Your task to perform on an android device: Do I have any events tomorrow? Image 0: 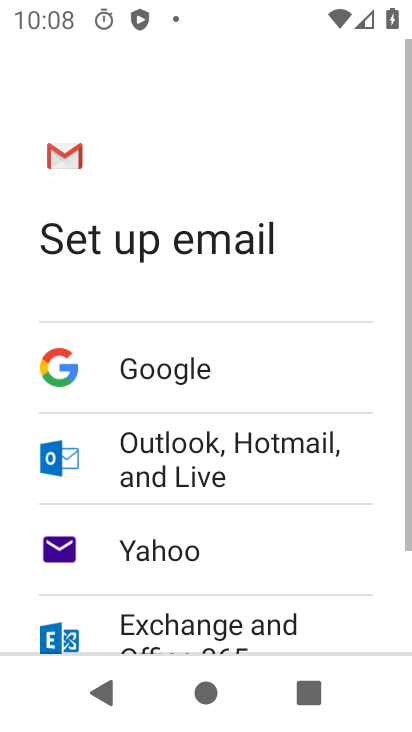
Step 0: press home button
Your task to perform on an android device: Do I have any events tomorrow? Image 1: 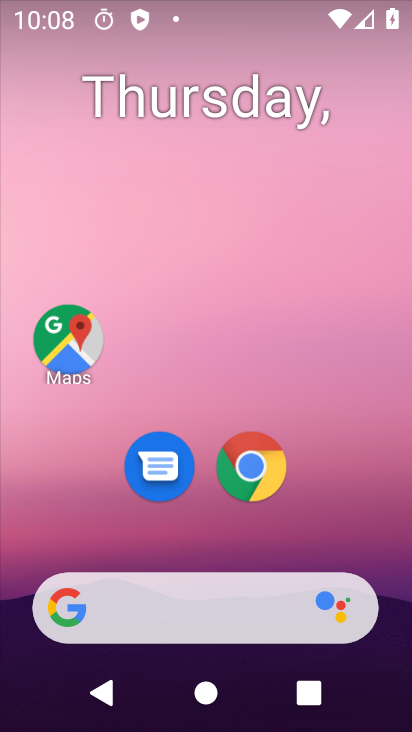
Step 1: drag from (196, 502) to (292, 121)
Your task to perform on an android device: Do I have any events tomorrow? Image 2: 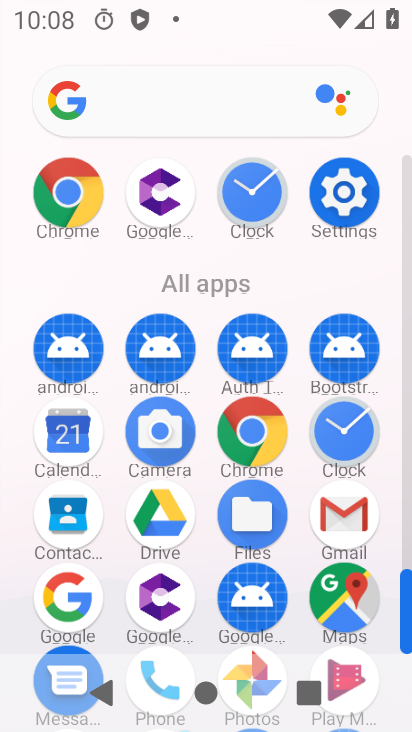
Step 2: click (66, 442)
Your task to perform on an android device: Do I have any events tomorrow? Image 3: 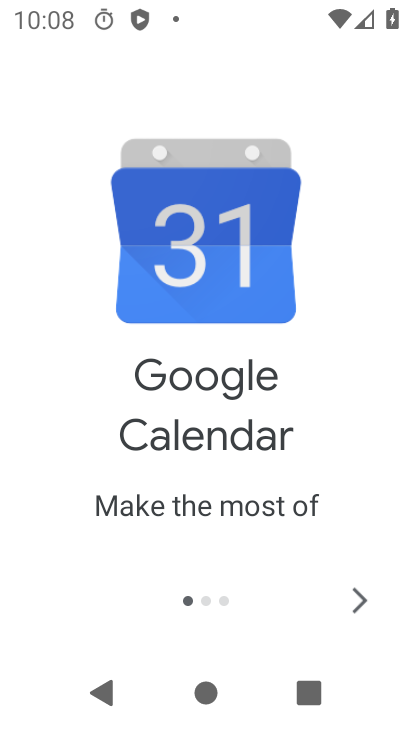
Step 3: click (352, 605)
Your task to perform on an android device: Do I have any events tomorrow? Image 4: 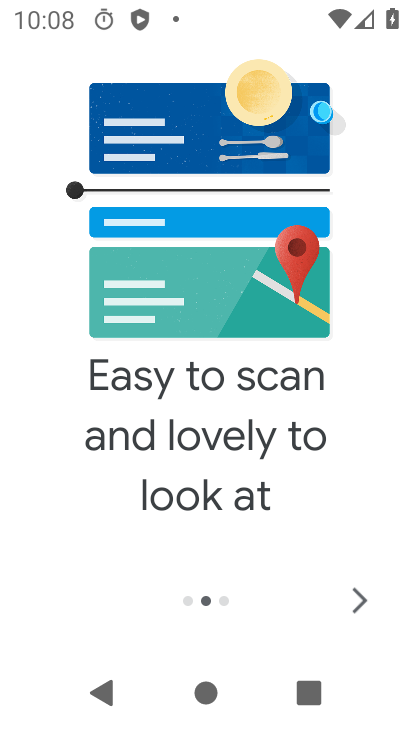
Step 4: click (350, 602)
Your task to perform on an android device: Do I have any events tomorrow? Image 5: 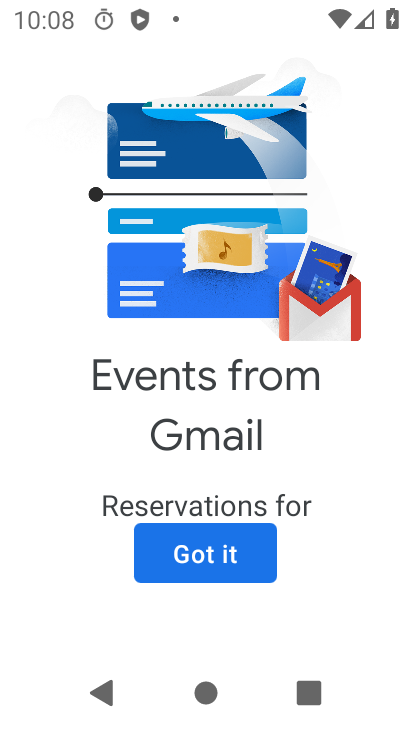
Step 5: click (214, 567)
Your task to perform on an android device: Do I have any events tomorrow? Image 6: 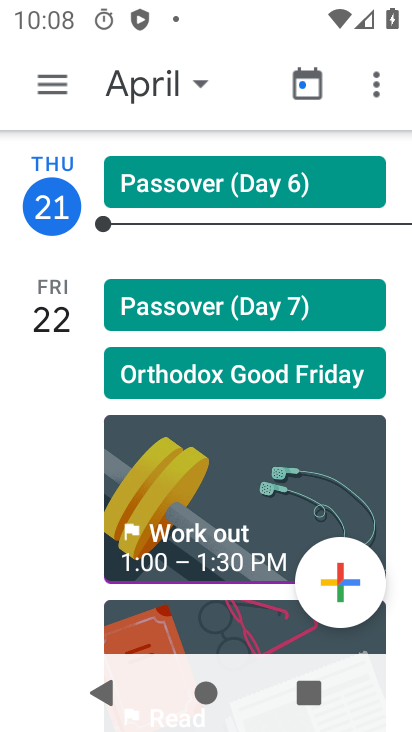
Step 6: click (143, 82)
Your task to perform on an android device: Do I have any events tomorrow? Image 7: 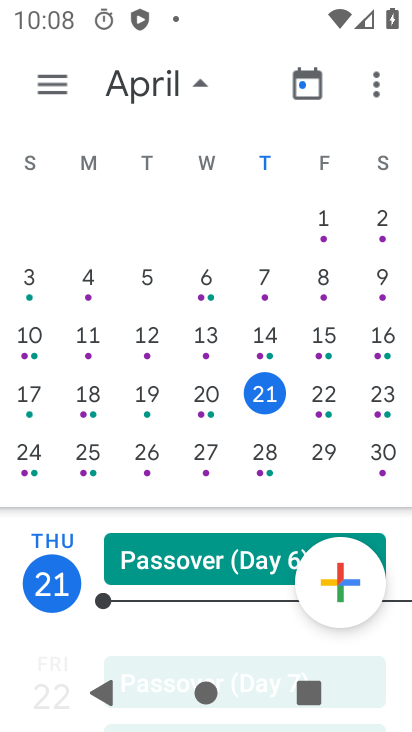
Step 7: click (332, 396)
Your task to perform on an android device: Do I have any events tomorrow? Image 8: 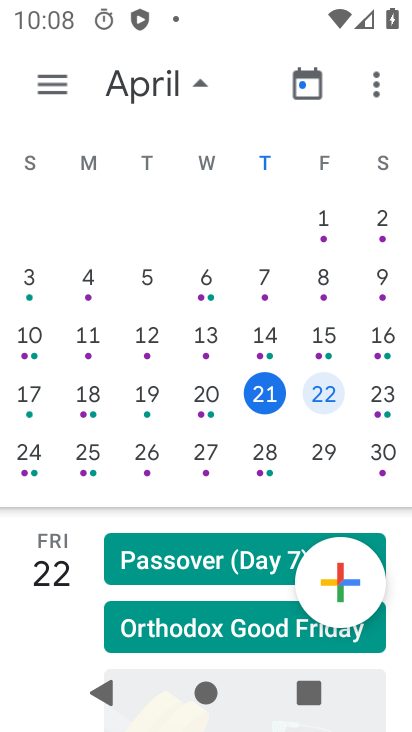
Step 8: click (46, 88)
Your task to perform on an android device: Do I have any events tomorrow? Image 9: 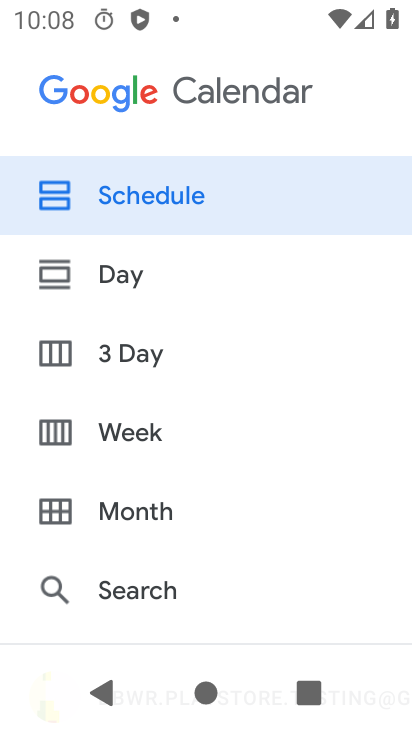
Step 9: click (107, 187)
Your task to perform on an android device: Do I have any events tomorrow? Image 10: 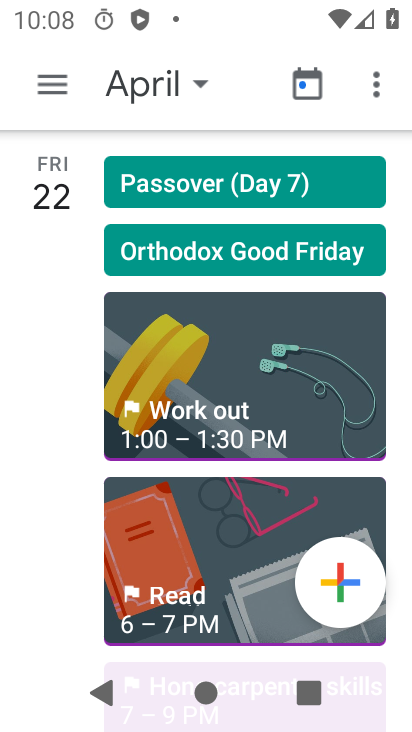
Step 10: drag from (181, 483) to (311, 233)
Your task to perform on an android device: Do I have any events tomorrow? Image 11: 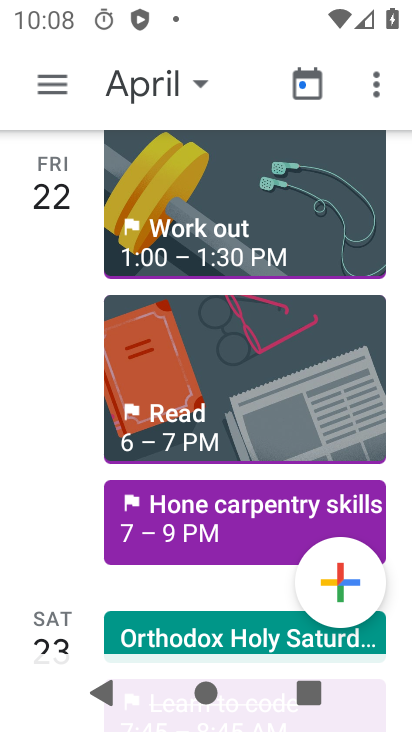
Step 11: click (184, 498)
Your task to perform on an android device: Do I have any events tomorrow? Image 12: 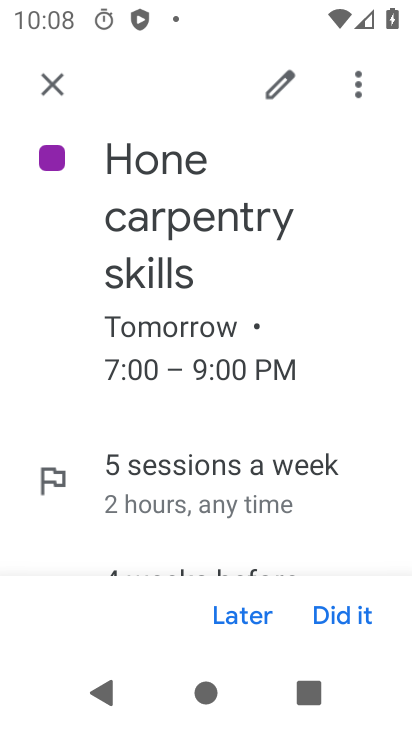
Step 12: task complete